Your task to perform on an android device: Search for custom t-shirts on Etsy. Image 0: 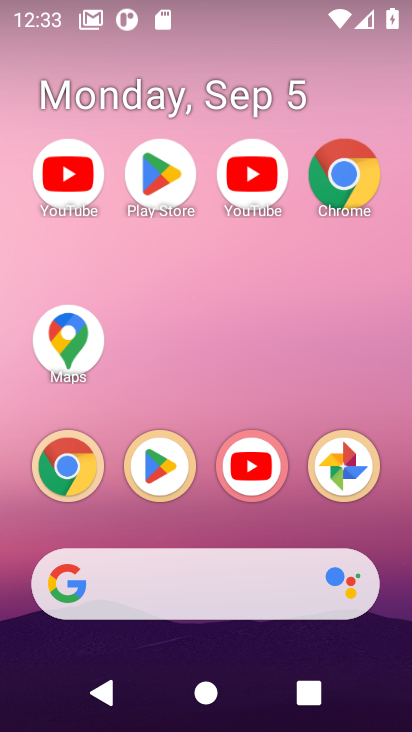
Step 0: click (341, 178)
Your task to perform on an android device: Search for custom t-shirts on Etsy. Image 1: 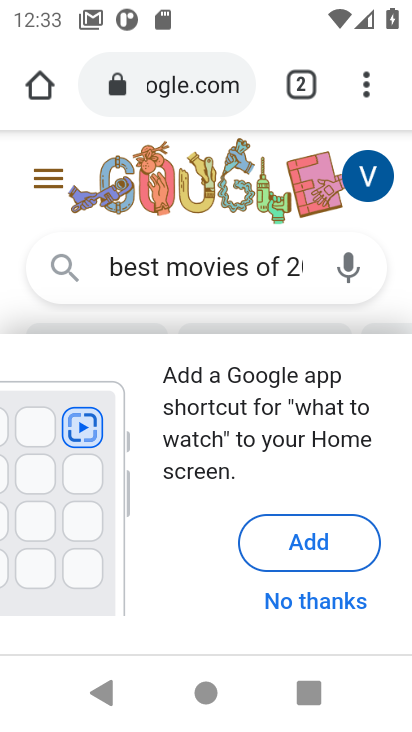
Step 1: click (219, 88)
Your task to perform on an android device: Search for custom t-shirts on Etsy. Image 2: 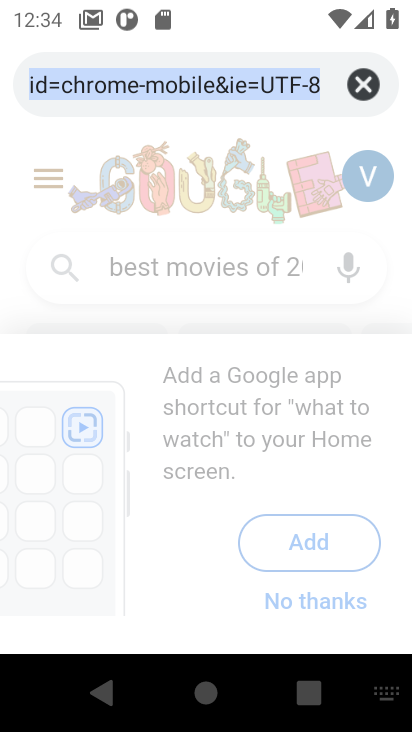
Step 2: type "Etsy"
Your task to perform on an android device: Search for custom t-shirts on Etsy. Image 3: 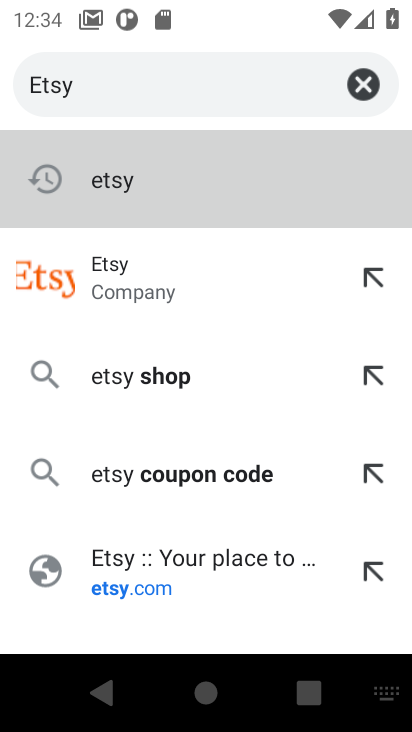
Step 3: click (115, 175)
Your task to perform on an android device: Search for custom t-shirts on Etsy. Image 4: 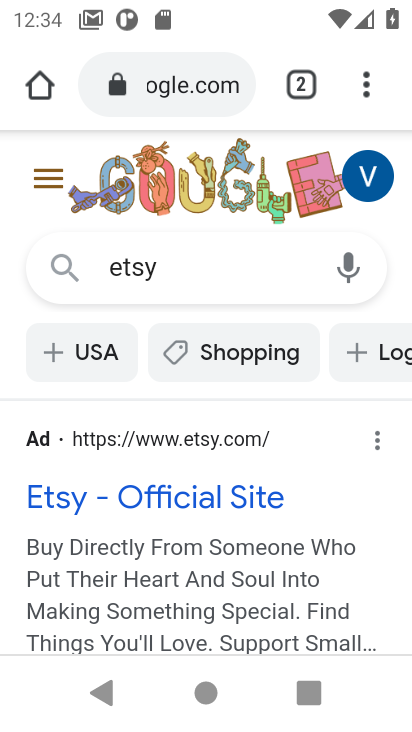
Step 4: click (48, 498)
Your task to perform on an android device: Search for custom t-shirts on Etsy. Image 5: 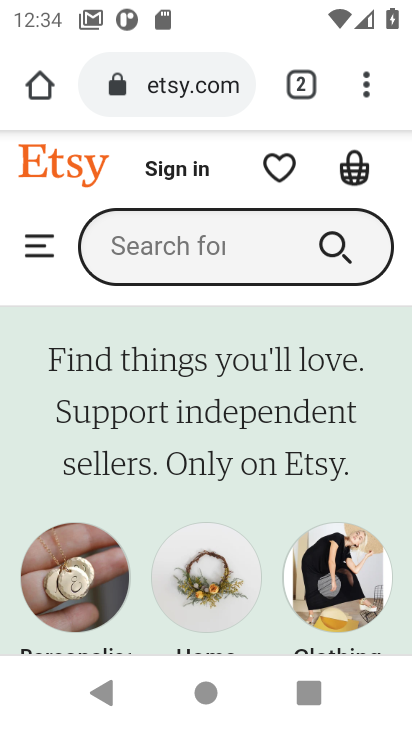
Step 5: drag from (134, 462) to (179, 349)
Your task to perform on an android device: Search for custom t-shirts on Etsy. Image 6: 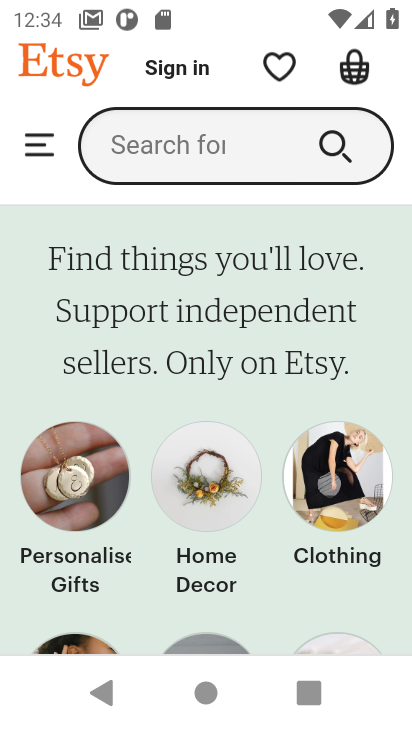
Step 6: click (161, 150)
Your task to perform on an android device: Search for custom t-shirts on Etsy. Image 7: 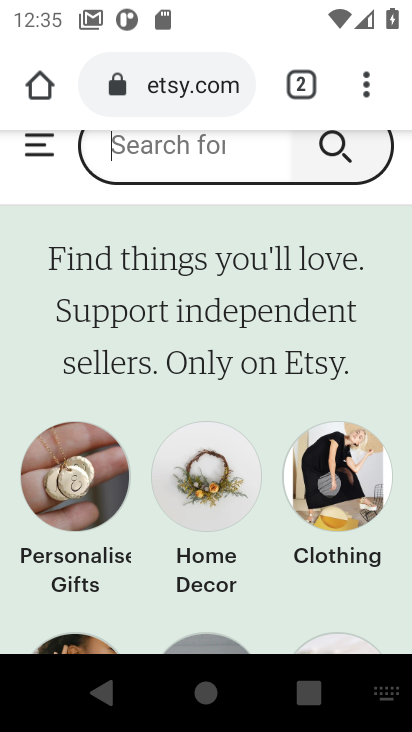
Step 7: type "t-shirt"
Your task to perform on an android device: Search for custom t-shirts on Etsy. Image 8: 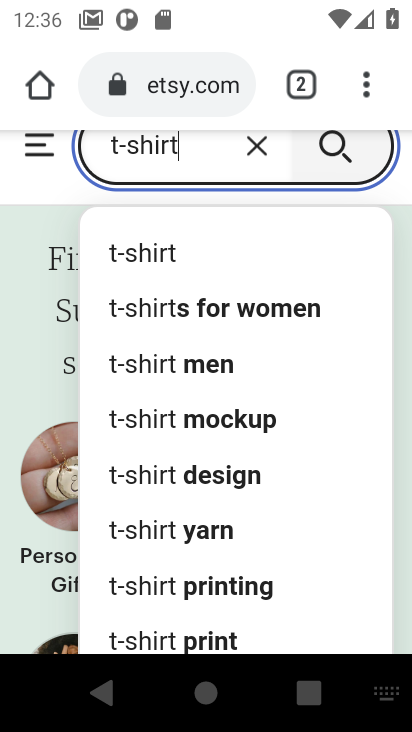
Step 8: click (157, 250)
Your task to perform on an android device: Search for custom t-shirts on Etsy. Image 9: 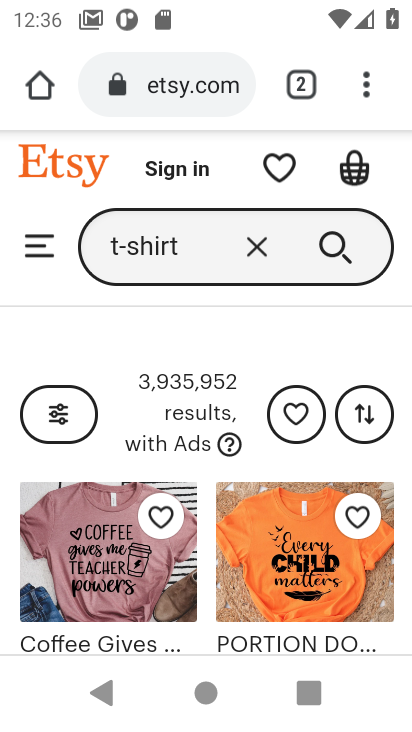
Step 9: task complete